Your task to perform on an android device: Search for pizza restaurants on Maps Image 0: 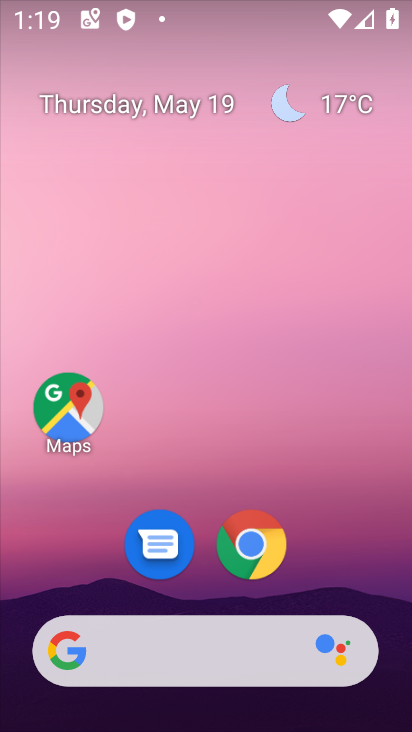
Step 0: drag from (239, 725) to (239, 160)
Your task to perform on an android device: Search for pizza restaurants on Maps Image 1: 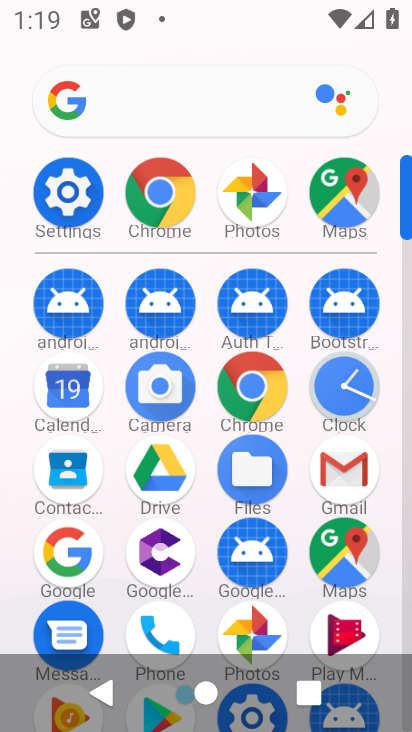
Step 1: click (356, 555)
Your task to perform on an android device: Search for pizza restaurants on Maps Image 2: 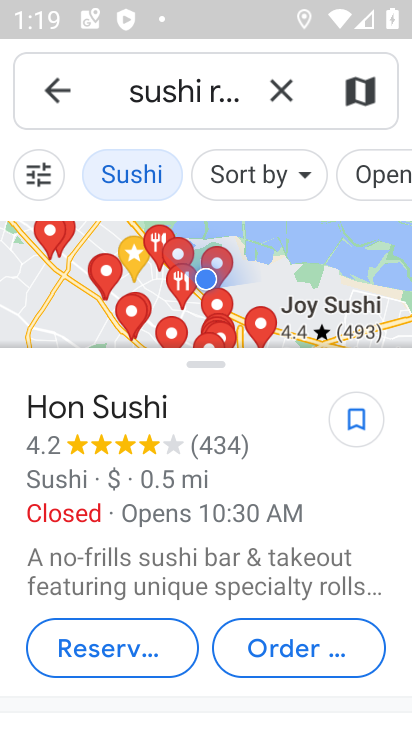
Step 2: click (280, 88)
Your task to perform on an android device: Search for pizza restaurants on Maps Image 3: 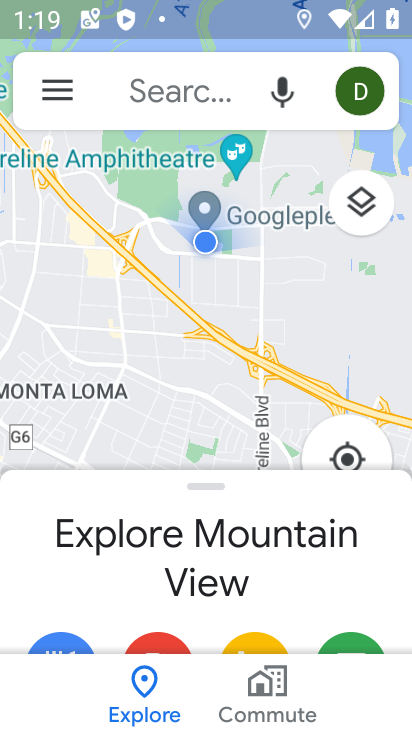
Step 3: click (189, 99)
Your task to perform on an android device: Search for pizza restaurants on Maps Image 4: 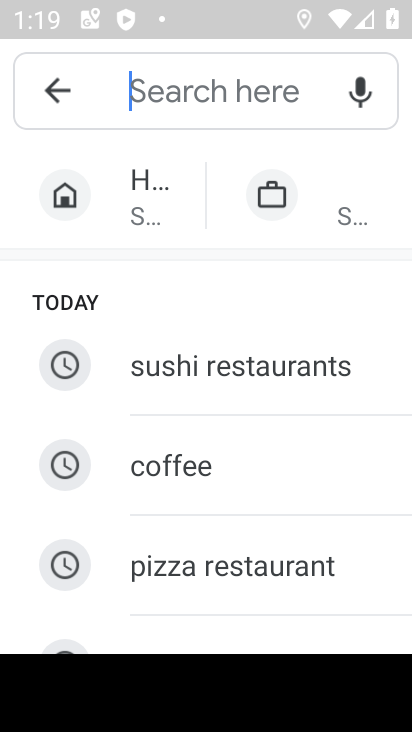
Step 4: type "pizza restaurants"
Your task to perform on an android device: Search for pizza restaurants on Maps Image 5: 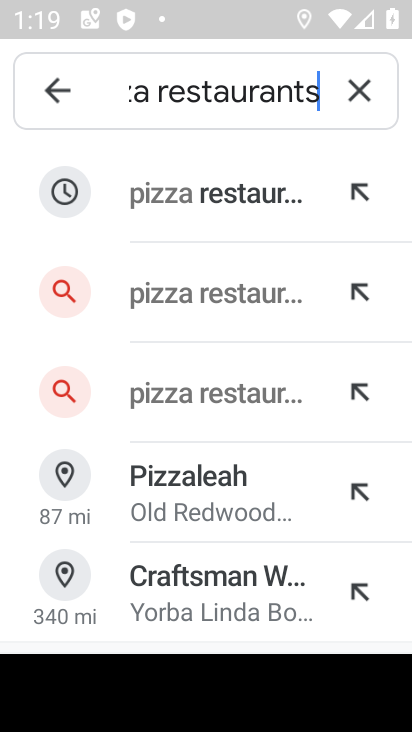
Step 5: click (214, 183)
Your task to perform on an android device: Search for pizza restaurants on Maps Image 6: 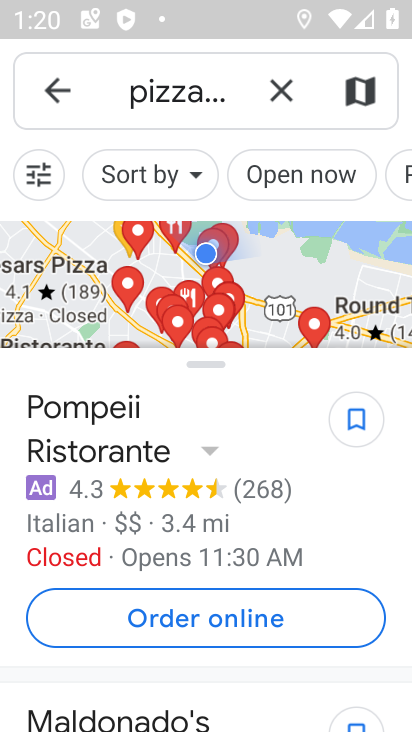
Step 6: task complete